Your task to perform on an android device: Search for vegetarian restaurants on Maps Image 0: 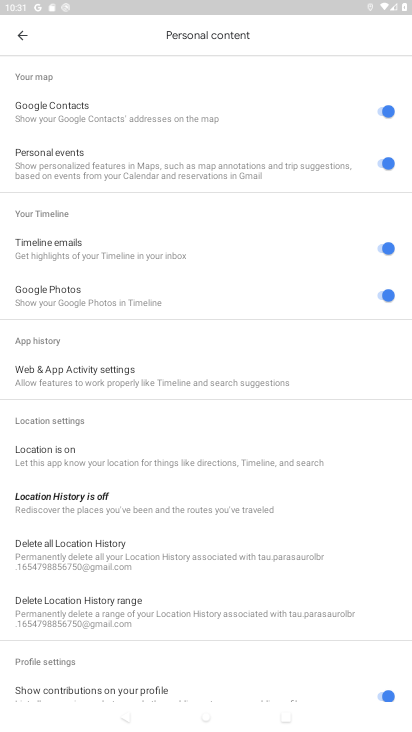
Step 0: press home button
Your task to perform on an android device: Search for vegetarian restaurants on Maps Image 1: 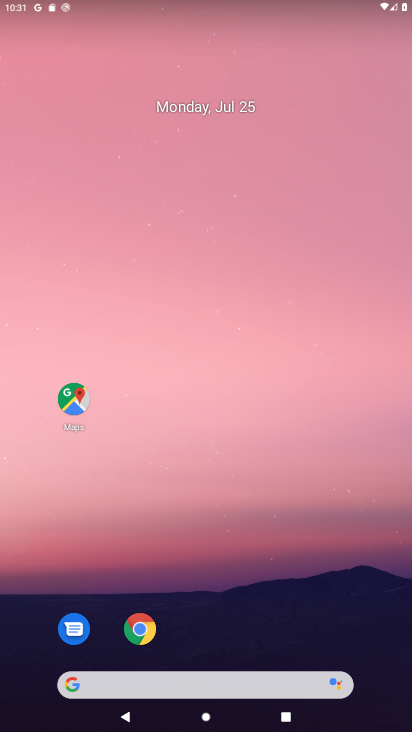
Step 1: click (70, 402)
Your task to perform on an android device: Search for vegetarian restaurants on Maps Image 2: 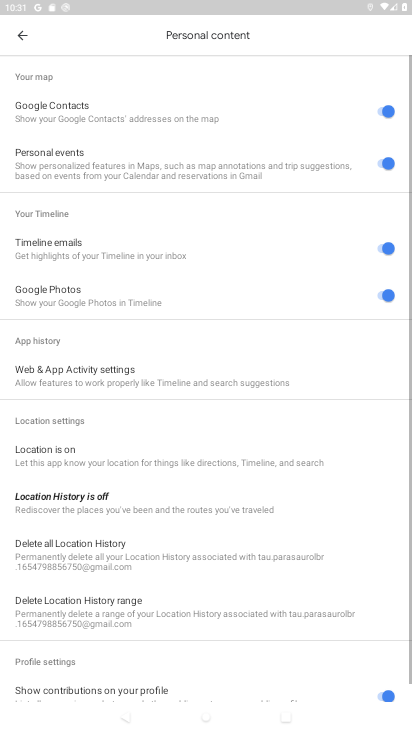
Step 2: click (26, 40)
Your task to perform on an android device: Search for vegetarian restaurants on Maps Image 3: 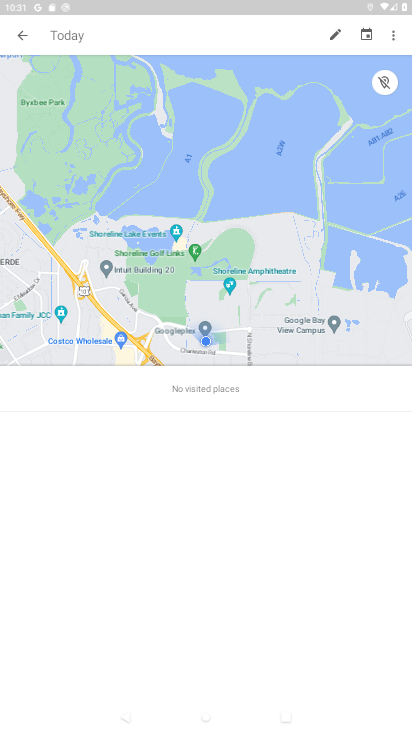
Step 3: click (26, 40)
Your task to perform on an android device: Search for vegetarian restaurants on Maps Image 4: 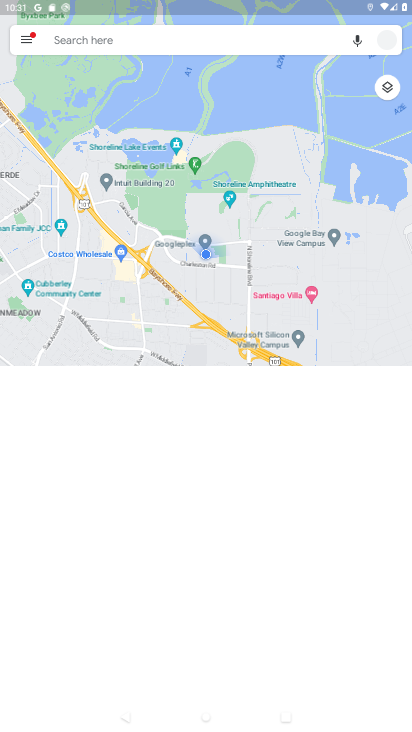
Step 4: click (135, 36)
Your task to perform on an android device: Search for vegetarian restaurants on Maps Image 5: 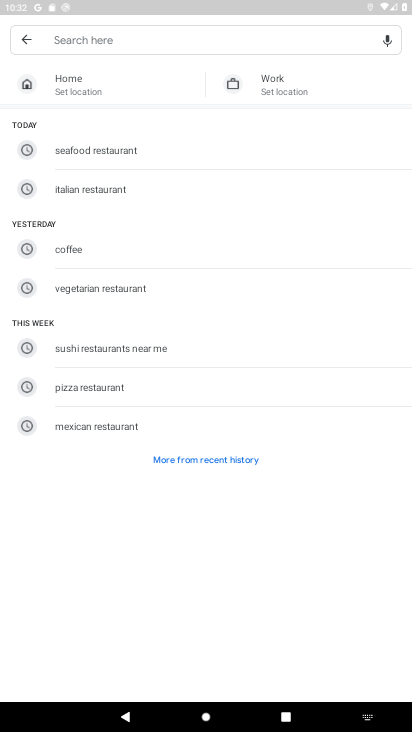
Step 5: click (128, 277)
Your task to perform on an android device: Search for vegetarian restaurants on Maps Image 6: 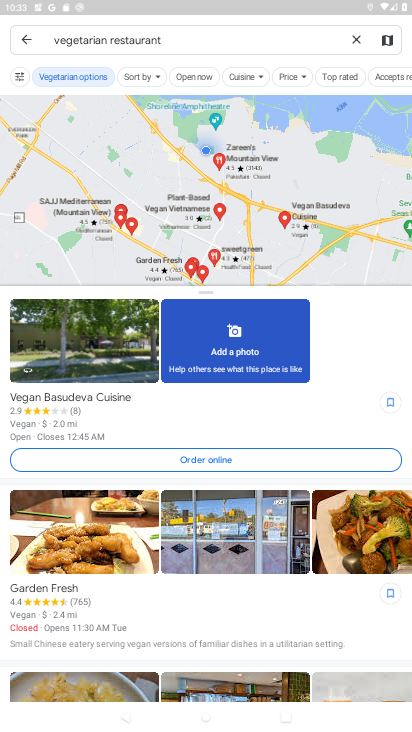
Step 6: task complete